Your task to perform on an android device: Go to battery settings Image 0: 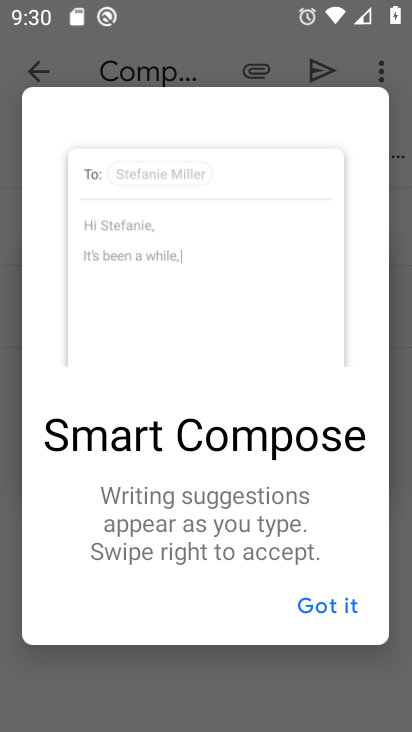
Step 0: press home button
Your task to perform on an android device: Go to battery settings Image 1: 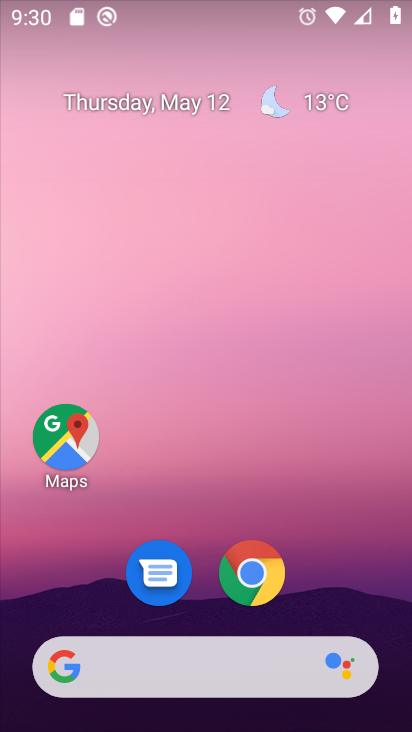
Step 1: drag from (403, 684) to (356, 171)
Your task to perform on an android device: Go to battery settings Image 2: 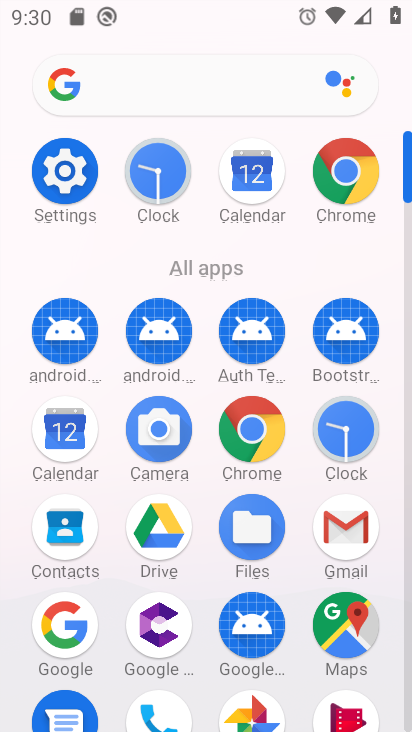
Step 2: click (73, 181)
Your task to perform on an android device: Go to battery settings Image 3: 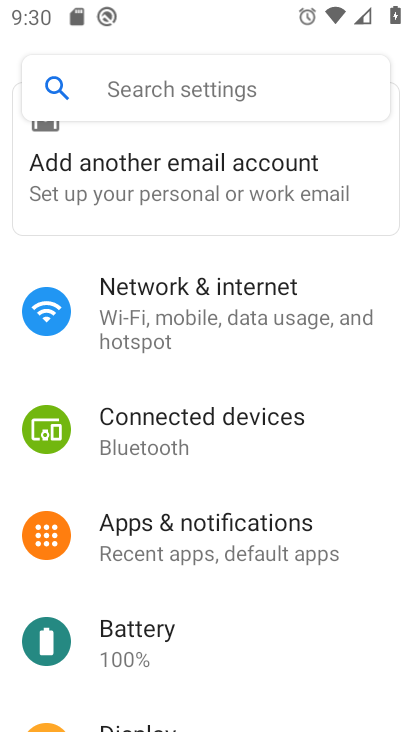
Step 3: click (143, 640)
Your task to perform on an android device: Go to battery settings Image 4: 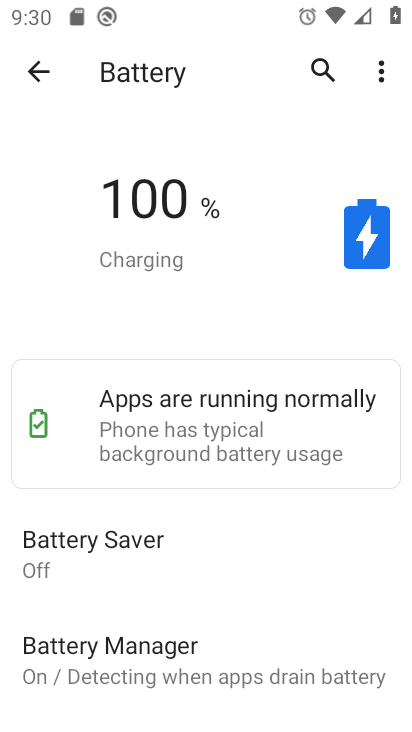
Step 4: task complete